Your task to perform on an android device: add a contact in the contacts app Image 0: 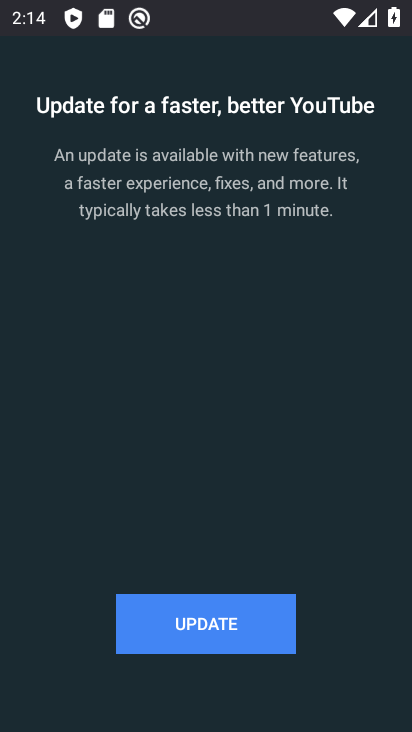
Step 0: press home button
Your task to perform on an android device: add a contact in the contacts app Image 1: 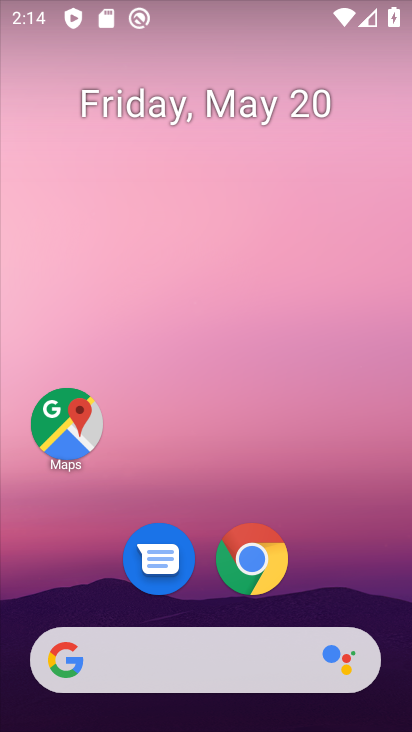
Step 1: drag from (199, 471) to (148, 43)
Your task to perform on an android device: add a contact in the contacts app Image 2: 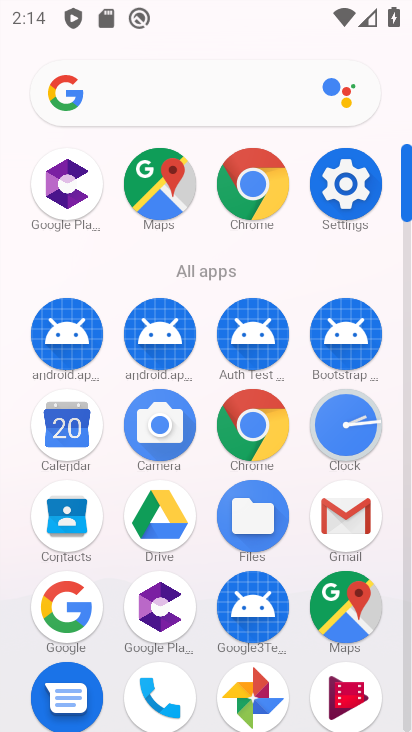
Step 2: click (67, 519)
Your task to perform on an android device: add a contact in the contacts app Image 3: 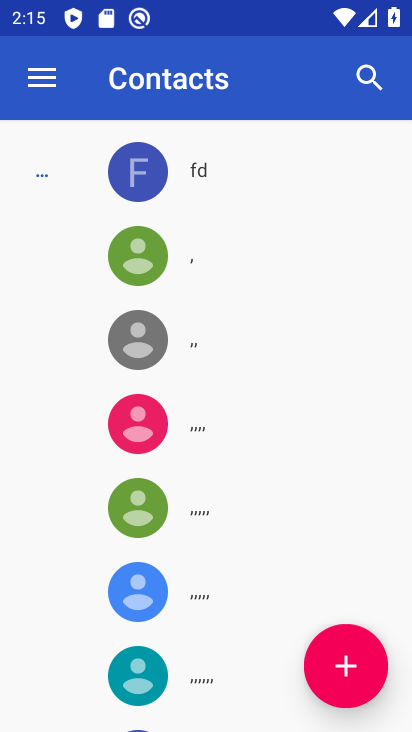
Step 3: click (338, 668)
Your task to perform on an android device: add a contact in the contacts app Image 4: 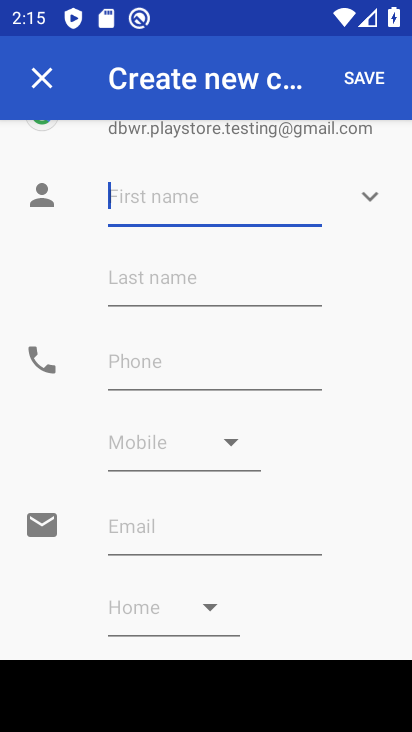
Step 4: type "Rudrabhishek"
Your task to perform on an android device: add a contact in the contacts app Image 5: 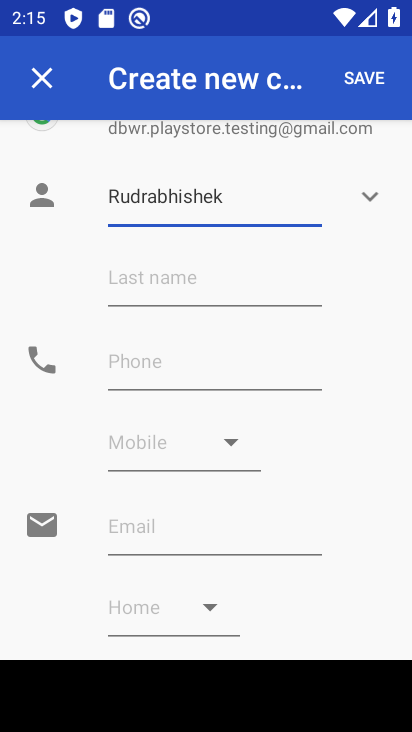
Step 5: click (182, 372)
Your task to perform on an android device: add a contact in the contacts app Image 6: 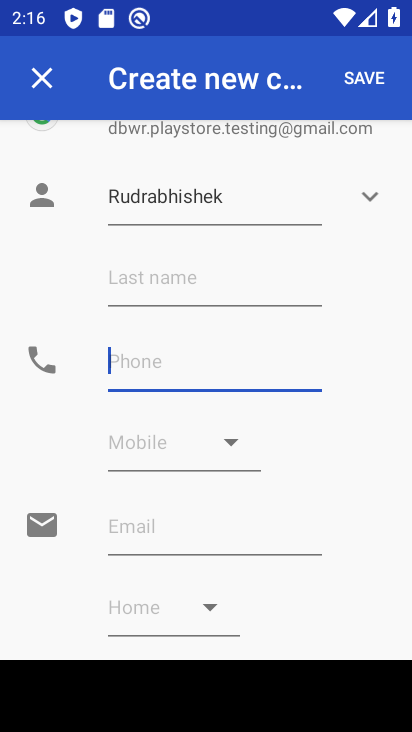
Step 6: type "01177665544"
Your task to perform on an android device: add a contact in the contacts app Image 7: 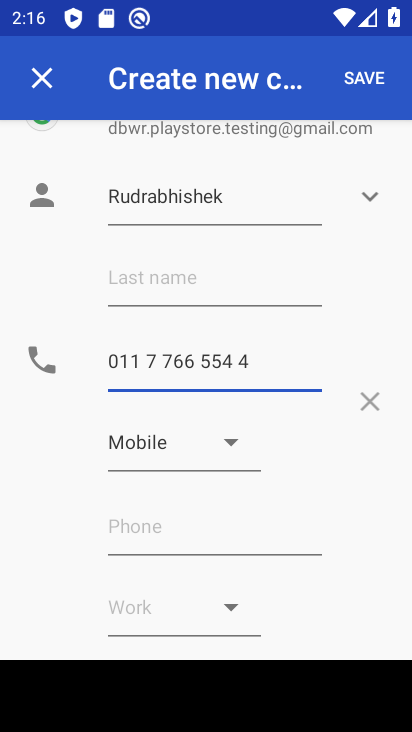
Step 7: click (368, 73)
Your task to perform on an android device: add a contact in the contacts app Image 8: 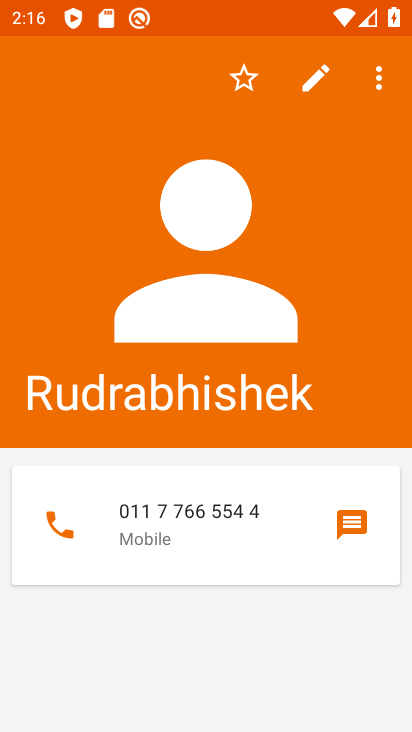
Step 8: task complete